Your task to perform on an android device: Open the phone app and click the voicemail tab. Image 0: 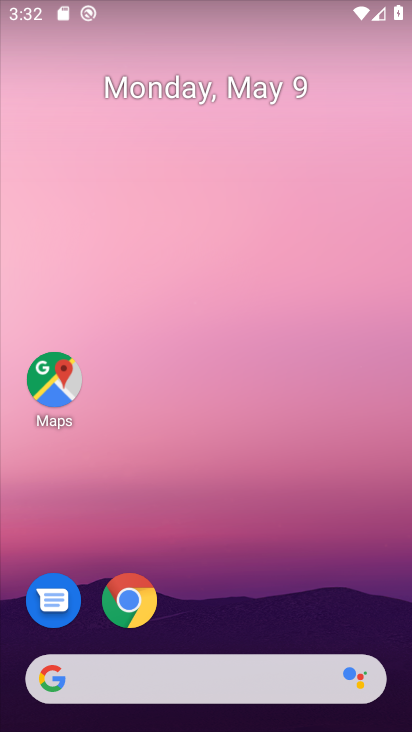
Step 0: drag from (261, 621) to (160, 106)
Your task to perform on an android device: Open the phone app and click the voicemail tab. Image 1: 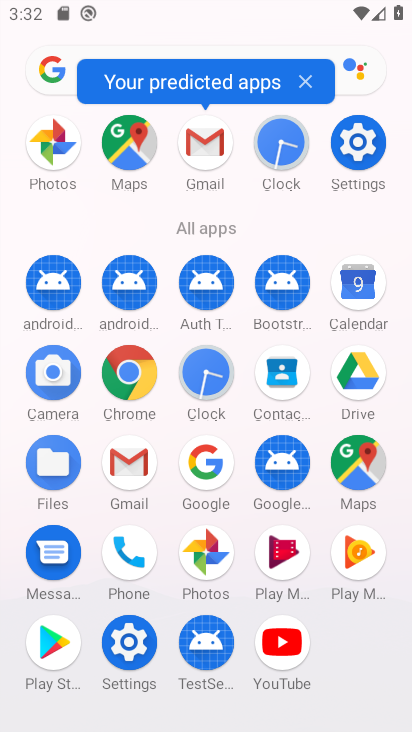
Step 1: drag from (273, 190) to (328, 276)
Your task to perform on an android device: Open the phone app and click the voicemail tab. Image 2: 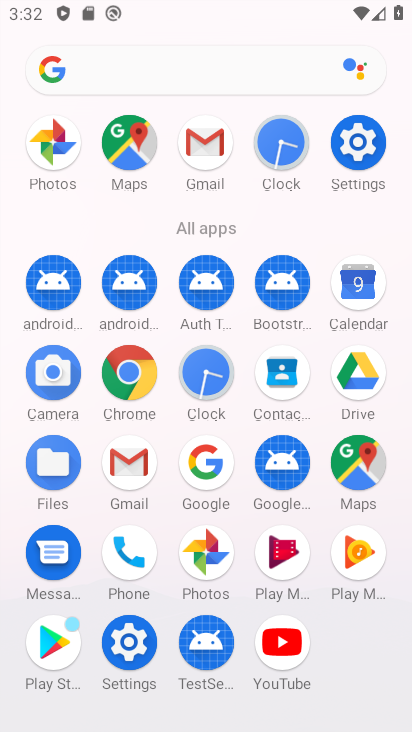
Step 2: click (145, 552)
Your task to perform on an android device: Open the phone app and click the voicemail tab. Image 3: 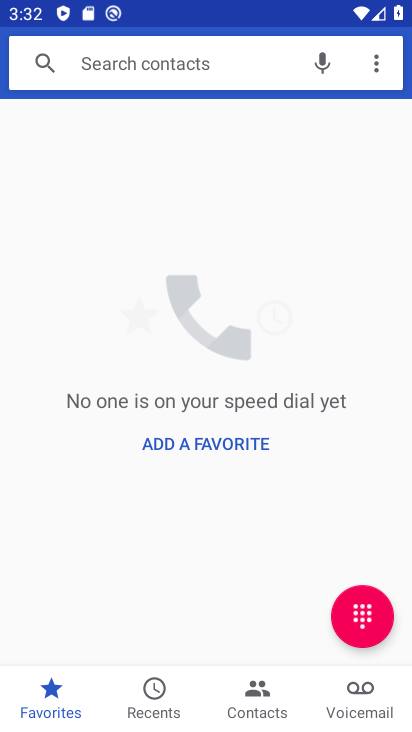
Step 3: click (356, 712)
Your task to perform on an android device: Open the phone app and click the voicemail tab. Image 4: 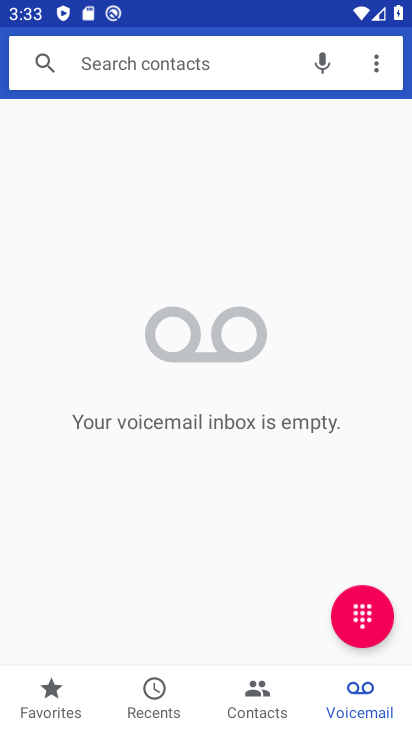
Step 4: task complete